Your task to perform on an android device: find which apps use the phone's location Image 0: 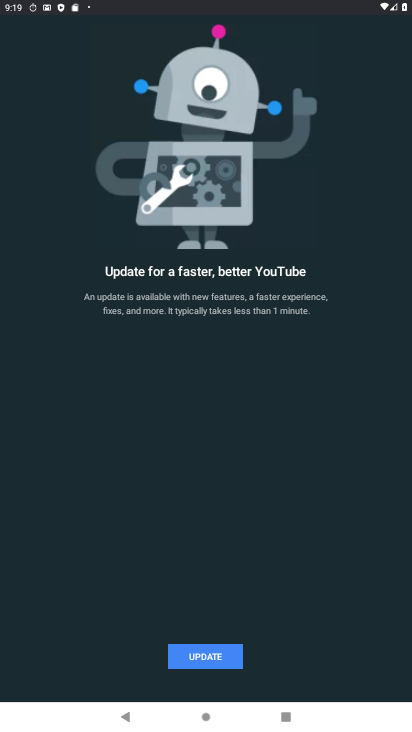
Step 0: press back button
Your task to perform on an android device: find which apps use the phone's location Image 1: 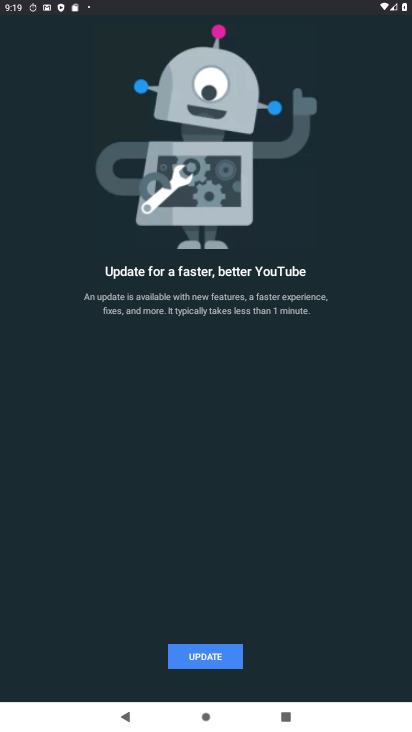
Step 1: press back button
Your task to perform on an android device: find which apps use the phone's location Image 2: 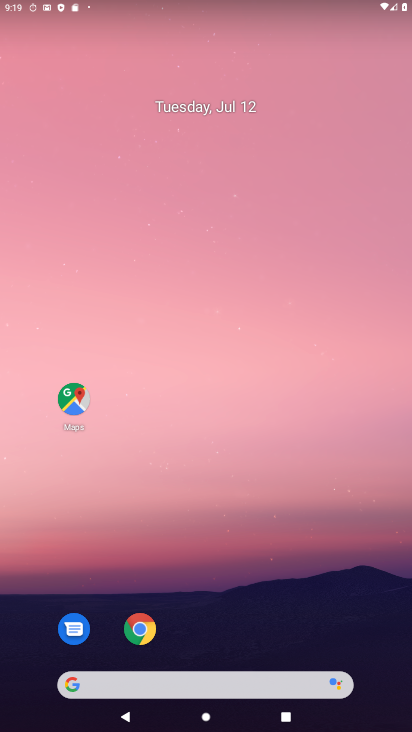
Step 2: drag from (225, 556) to (172, 161)
Your task to perform on an android device: find which apps use the phone's location Image 3: 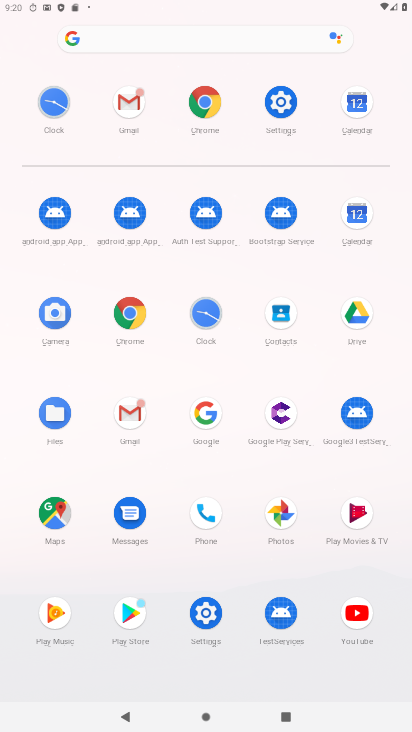
Step 3: click (256, 112)
Your task to perform on an android device: find which apps use the phone's location Image 4: 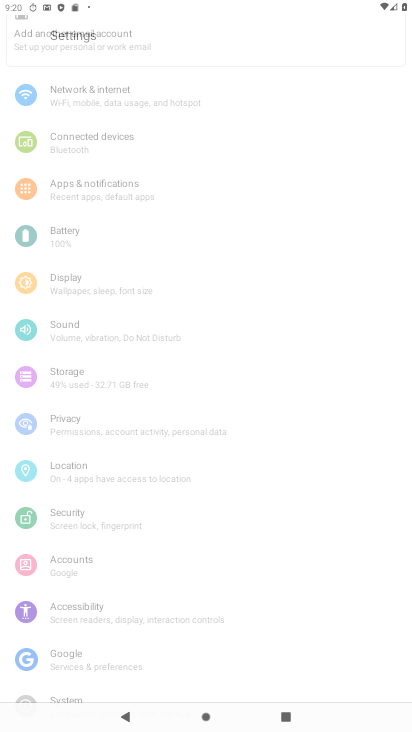
Step 4: click (280, 103)
Your task to perform on an android device: find which apps use the phone's location Image 5: 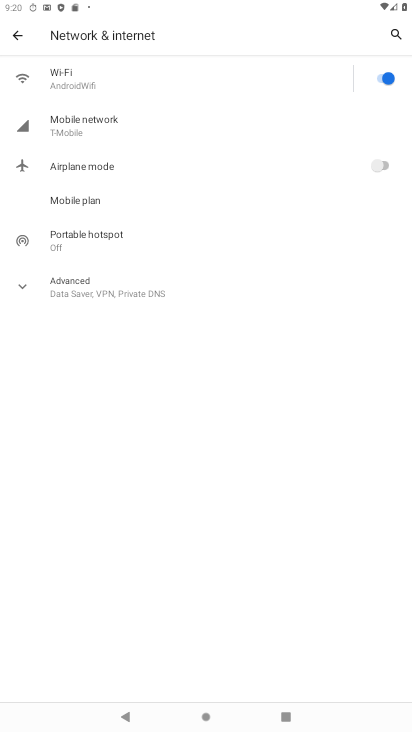
Step 5: click (8, 36)
Your task to perform on an android device: find which apps use the phone's location Image 6: 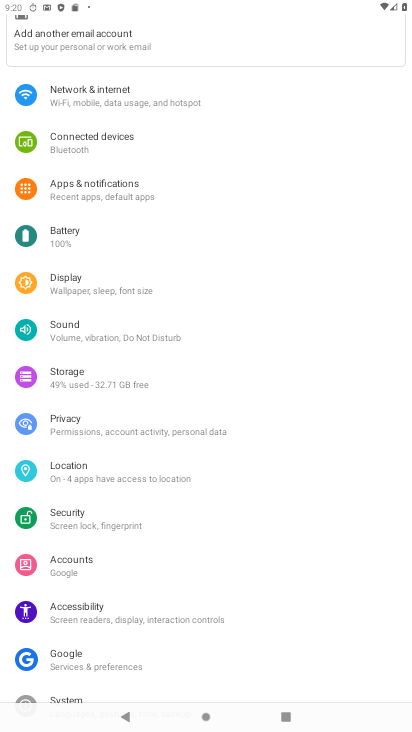
Step 6: click (88, 465)
Your task to perform on an android device: find which apps use the phone's location Image 7: 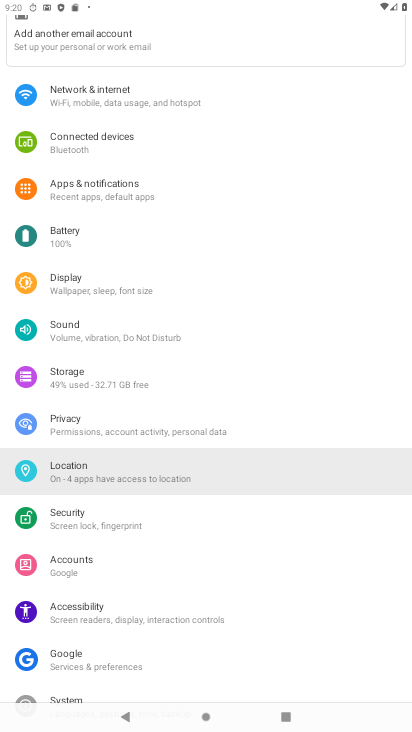
Step 7: click (87, 468)
Your task to perform on an android device: find which apps use the phone's location Image 8: 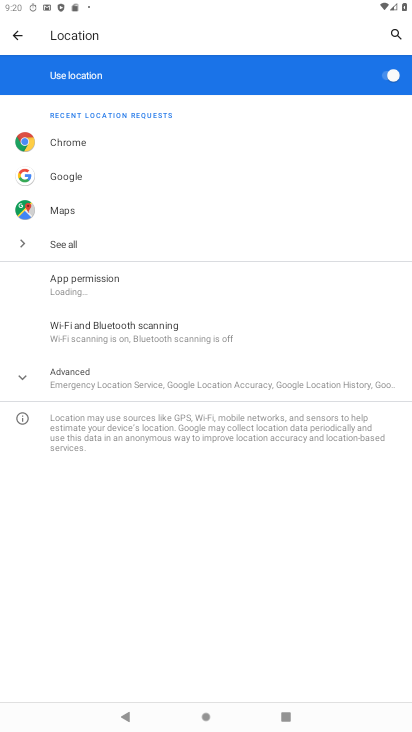
Step 8: click (71, 287)
Your task to perform on an android device: find which apps use the phone's location Image 9: 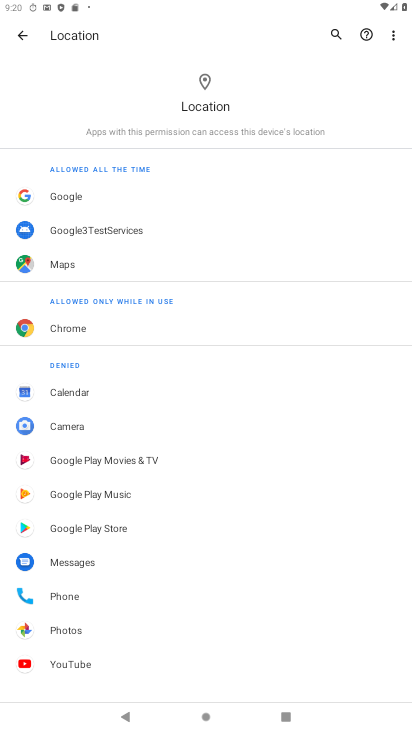
Step 9: task complete